Your task to perform on an android device: Open the Play Movies app and select the watchlist tab. Image 0: 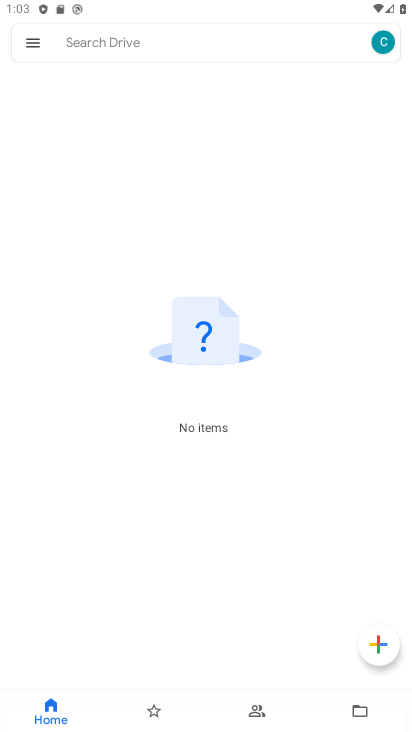
Step 0: press home button
Your task to perform on an android device: Open the Play Movies app and select the watchlist tab. Image 1: 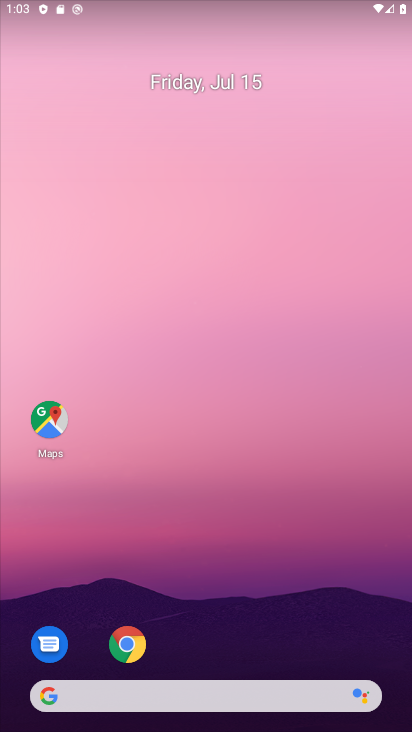
Step 1: drag from (386, 687) to (307, 160)
Your task to perform on an android device: Open the Play Movies app and select the watchlist tab. Image 2: 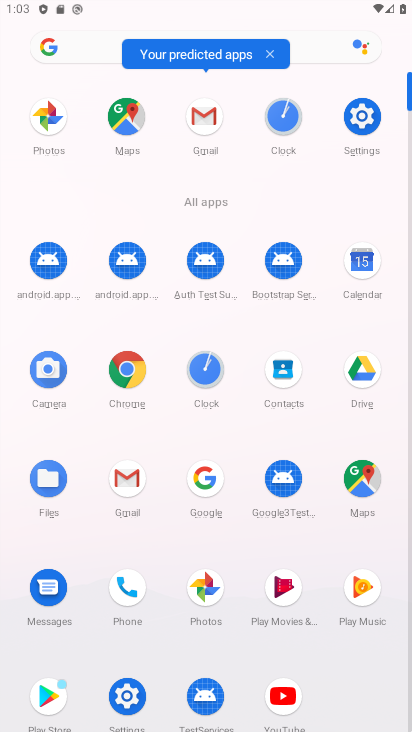
Step 2: click (289, 591)
Your task to perform on an android device: Open the Play Movies app and select the watchlist tab. Image 3: 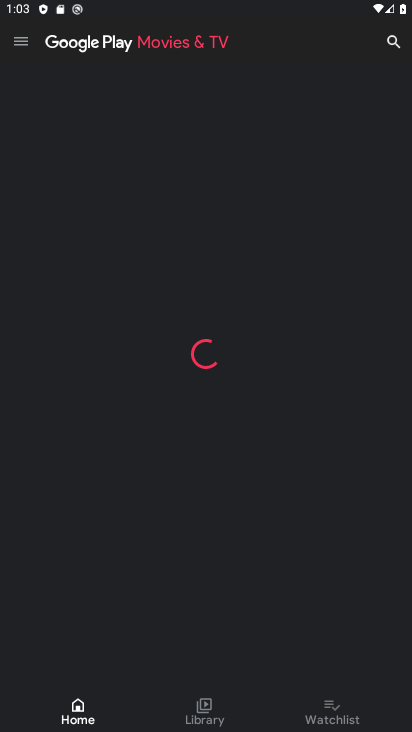
Step 3: click (324, 709)
Your task to perform on an android device: Open the Play Movies app and select the watchlist tab. Image 4: 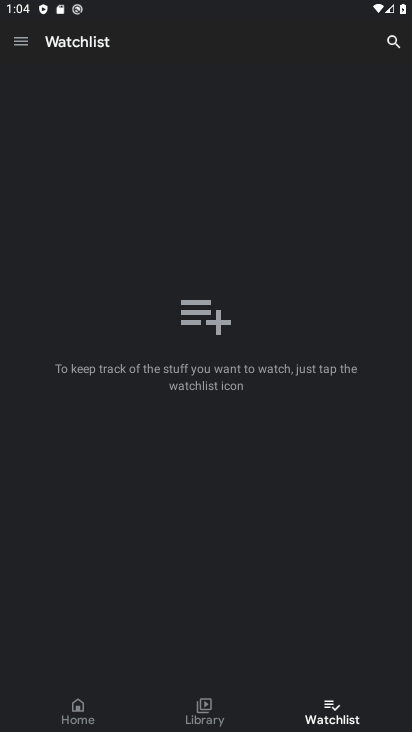
Step 4: task complete